Your task to perform on an android device: Open Maps and search for coffee Image 0: 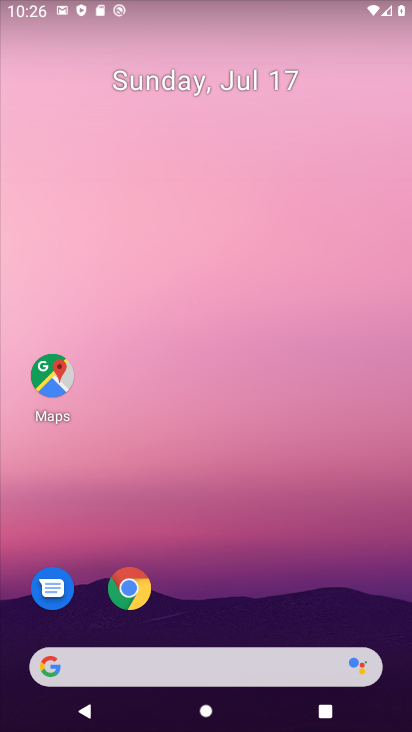
Step 0: click (32, 378)
Your task to perform on an android device: Open Maps and search for coffee Image 1: 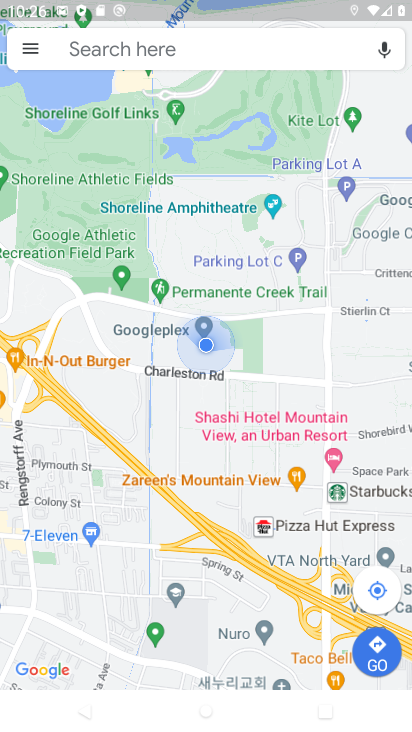
Step 1: click (189, 42)
Your task to perform on an android device: Open Maps and search for coffee Image 2: 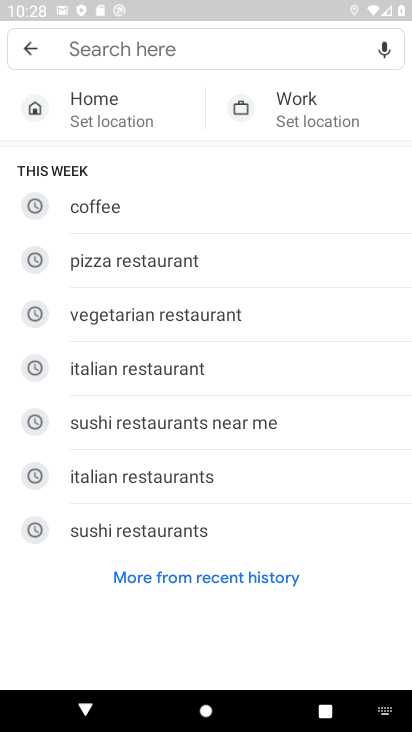
Step 2: click (179, 50)
Your task to perform on an android device: Open Maps and search for coffee Image 3: 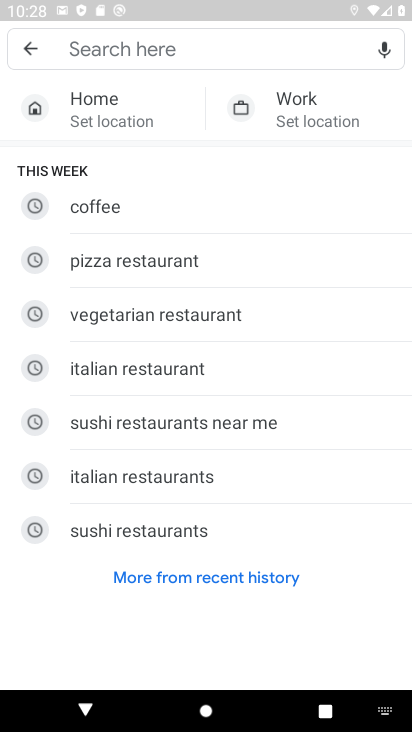
Step 3: type "coffee"
Your task to perform on an android device: Open Maps and search for coffee Image 4: 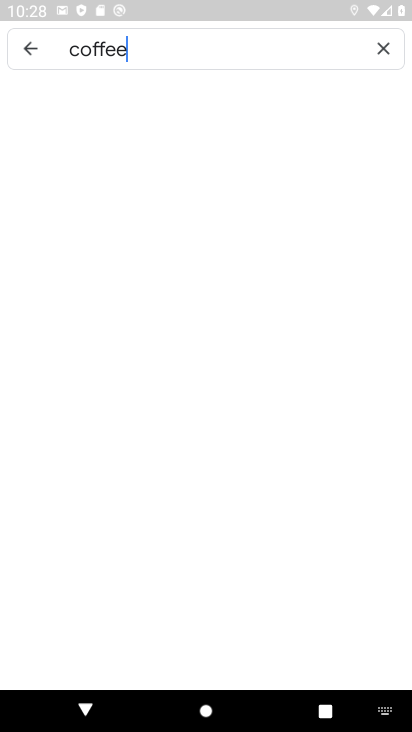
Step 4: type ""
Your task to perform on an android device: Open Maps and search for coffee Image 5: 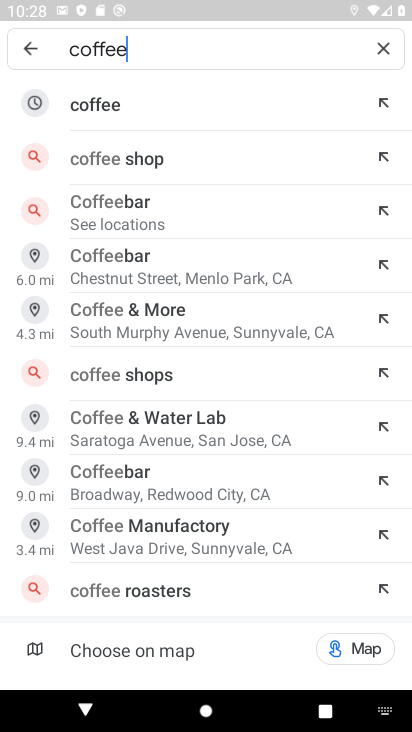
Step 5: click (114, 95)
Your task to perform on an android device: Open Maps and search for coffee Image 6: 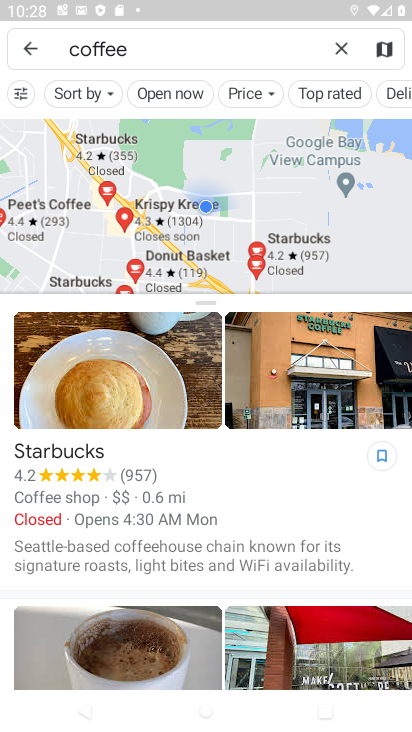
Step 6: task complete